Your task to perform on an android device: install app "Chime – Mobile Banking" Image 0: 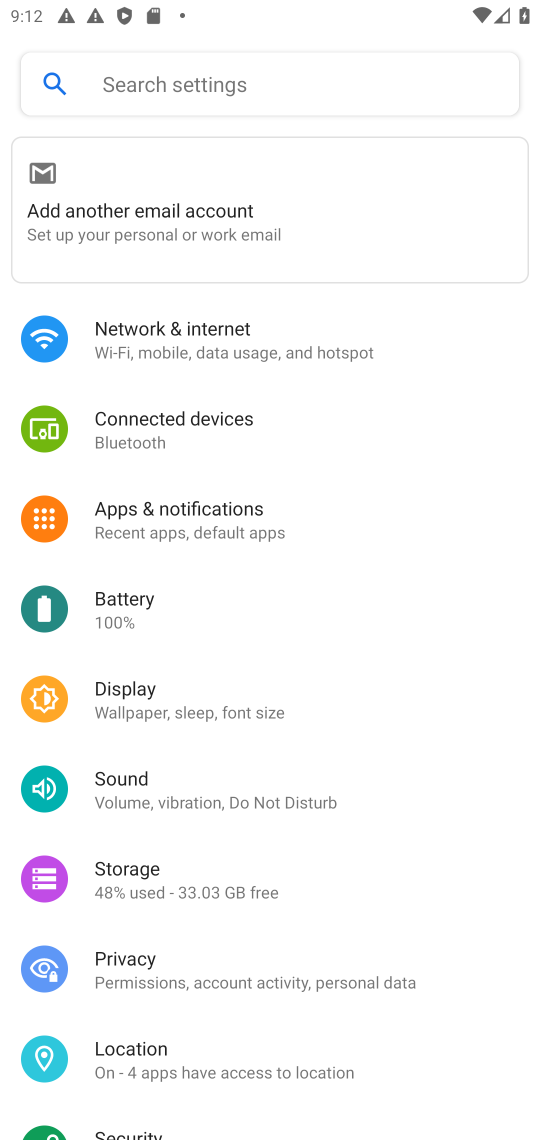
Step 0: press home button
Your task to perform on an android device: install app "Chime – Mobile Banking" Image 1: 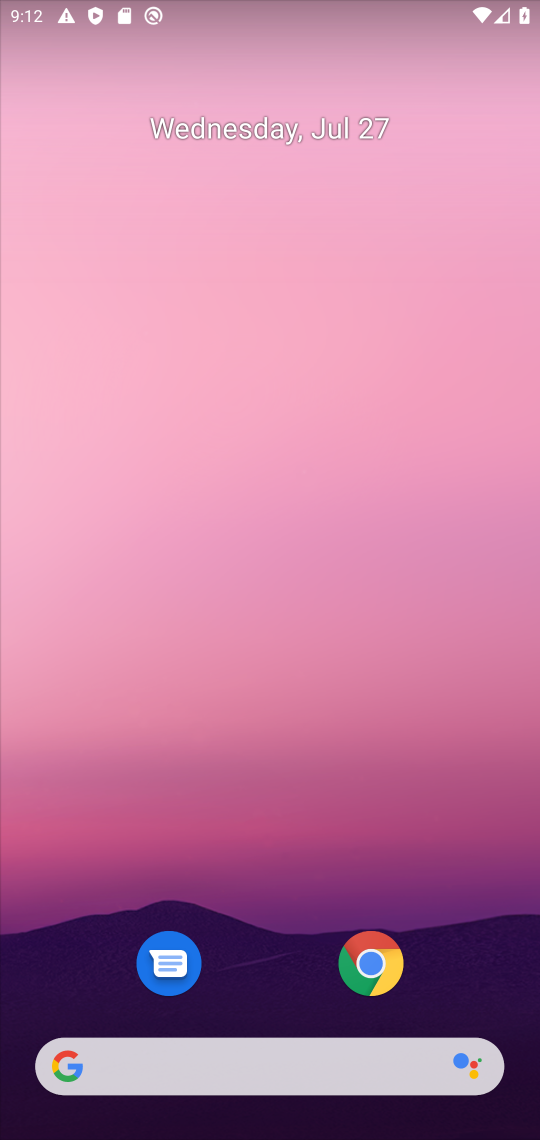
Step 1: drag from (279, 968) to (200, 31)
Your task to perform on an android device: install app "Chime – Mobile Banking" Image 2: 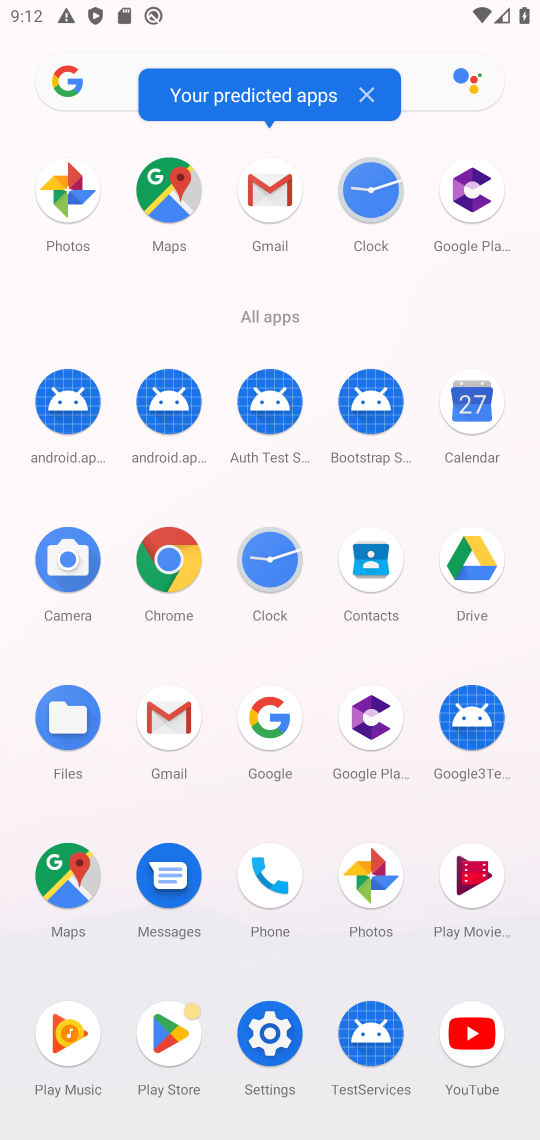
Step 2: click (174, 1072)
Your task to perform on an android device: install app "Chime – Mobile Banking" Image 3: 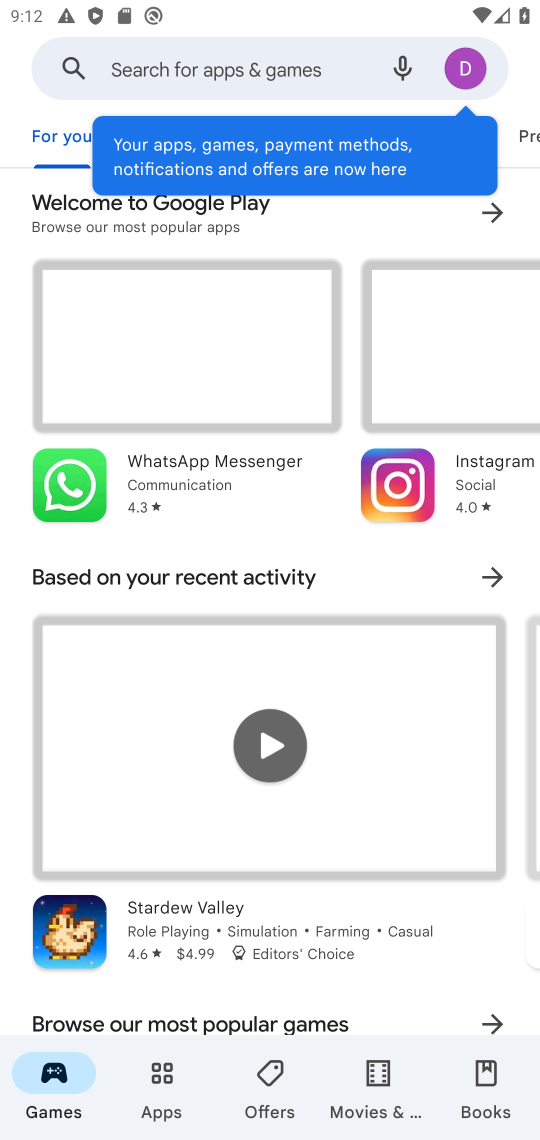
Step 3: click (292, 55)
Your task to perform on an android device: install app "Chime – Mobile Banking" Image 4: 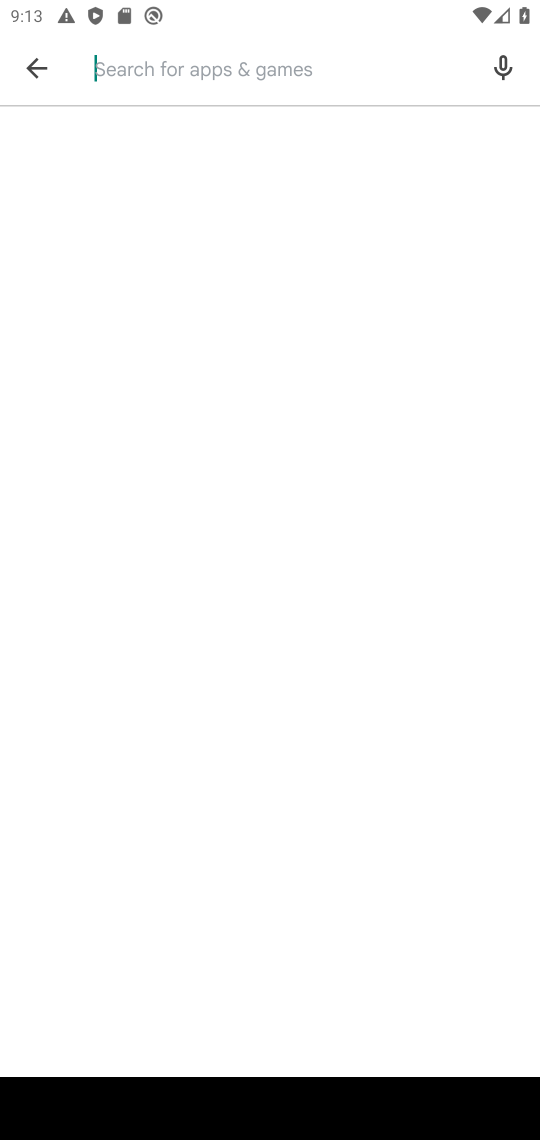
Step 4: type "chime"
Your task to perform on an android device: install app "Chime – Mobile Banking" Image 5: 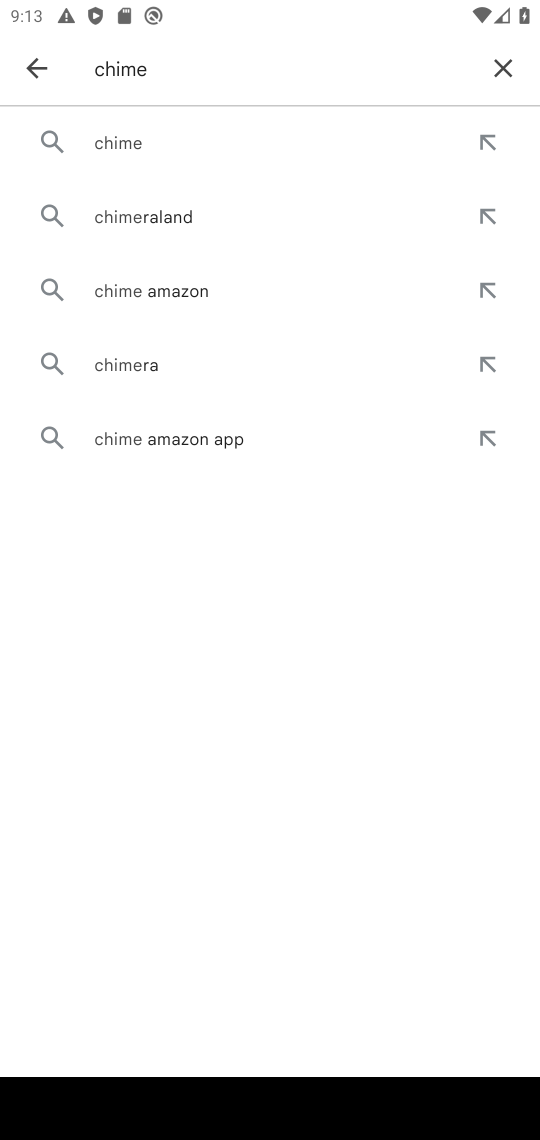
Step 5: click (162, 152)
Your task to perform on an android device: install app "Chime – Mobile Banking" Image 6: 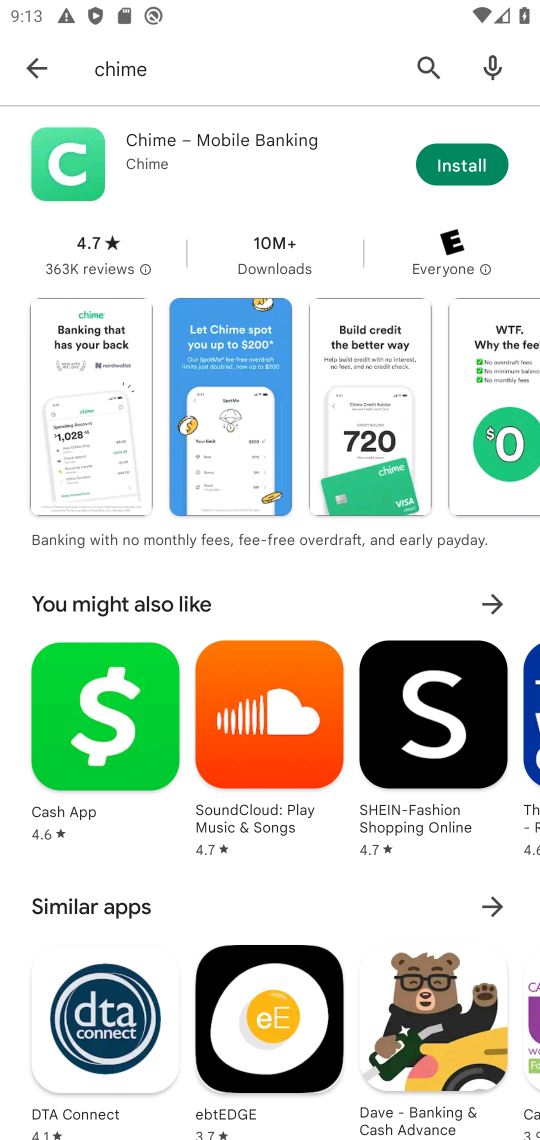
Step 6: click (454, 177)
Your task to perform on an android device: install app "Chime – Mobile Banking" Image 7: 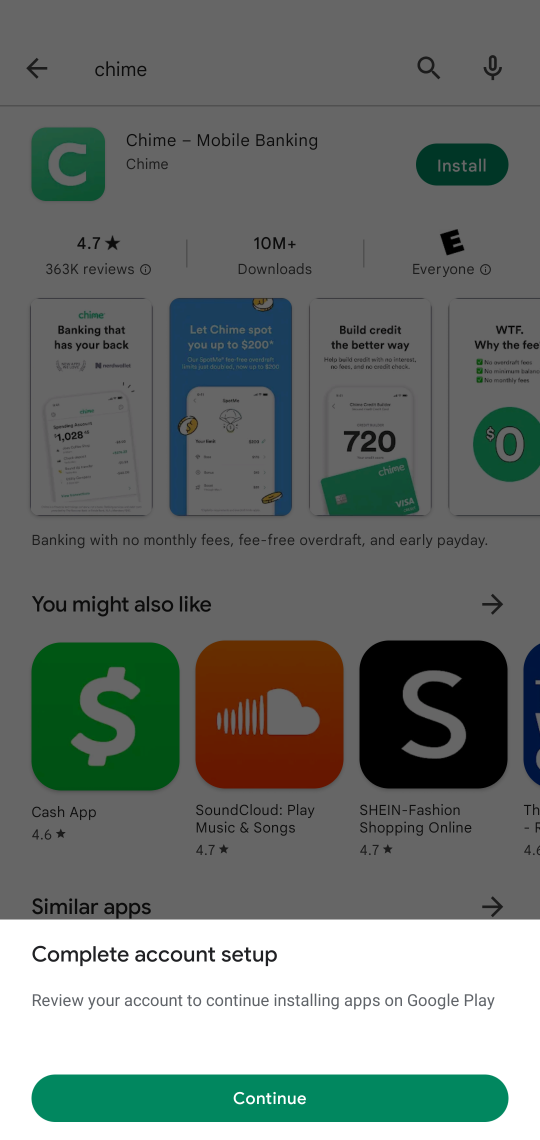
Step 7: click (347, 1104)
Your task to perform on an android device: install app "Chime – Mobile Banking" Image 8: 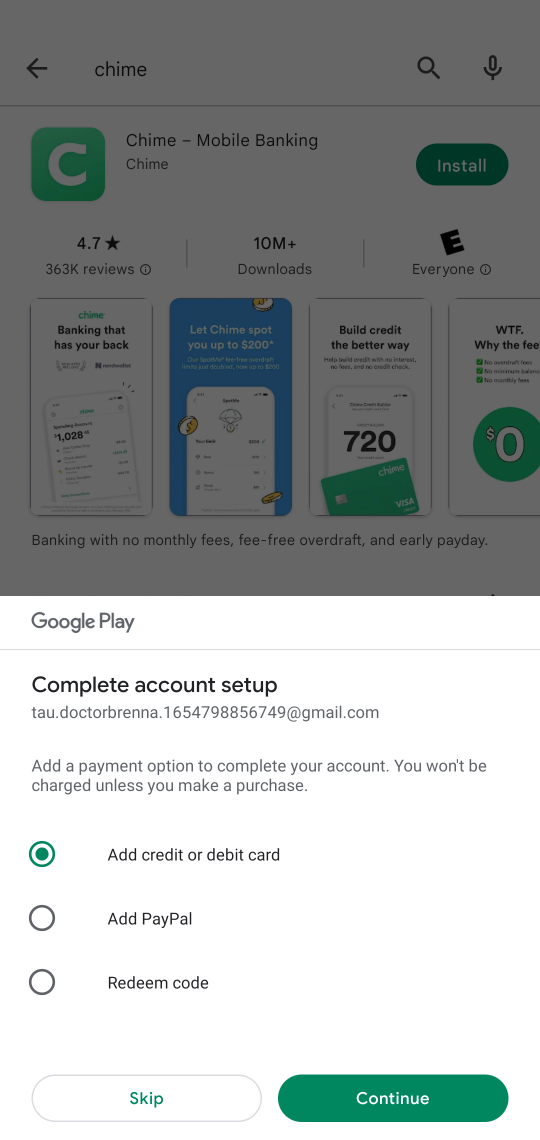
Step 8: click (138, 1093)
Your task to perform on an android device: install app "Chime – Mobile Banking" Image 9: 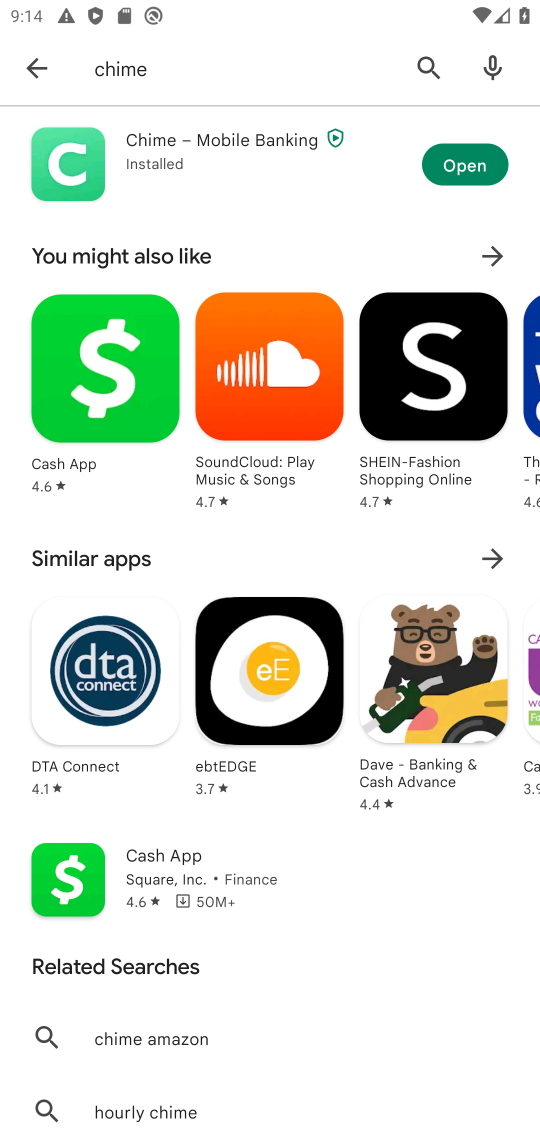
Step 9: task complete